Your task to perform on an android device: see creations saved in the google photos Image 0: 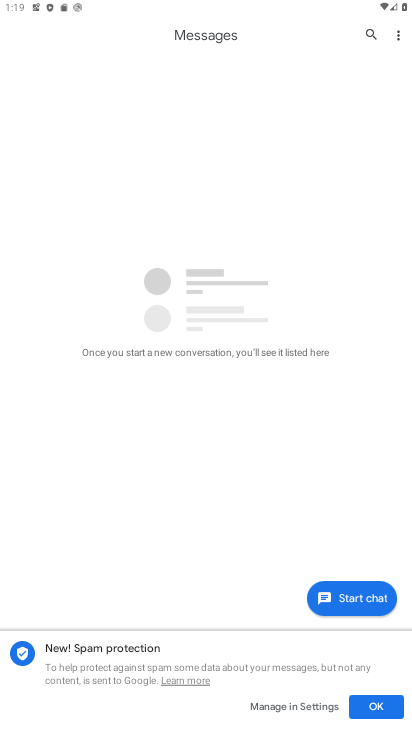
Step 0: press home button
Your task to perform on an android device: see creations saved in the google photos Image 1: 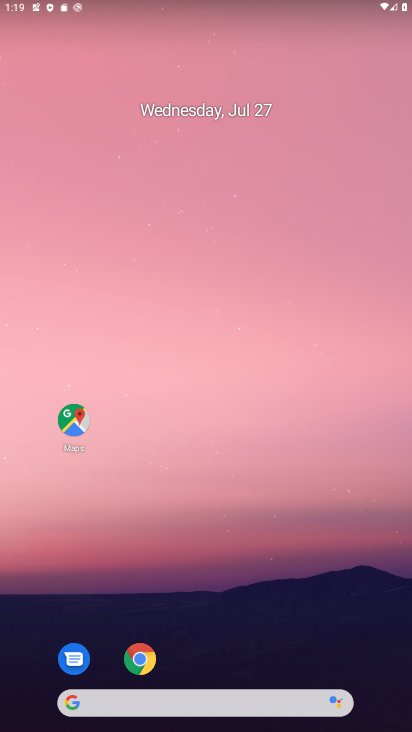
Step 1: drag from (294, 599) to (264, 110)
Your task to perform on an android device: see creations saved in the google photos Image 2: 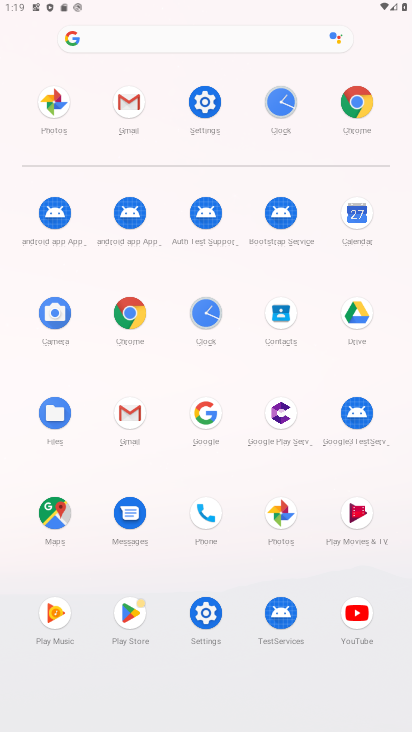
Step 2: click (280, 516)
Your task to perform on an android device: see creations saved in the google photos Image 3: 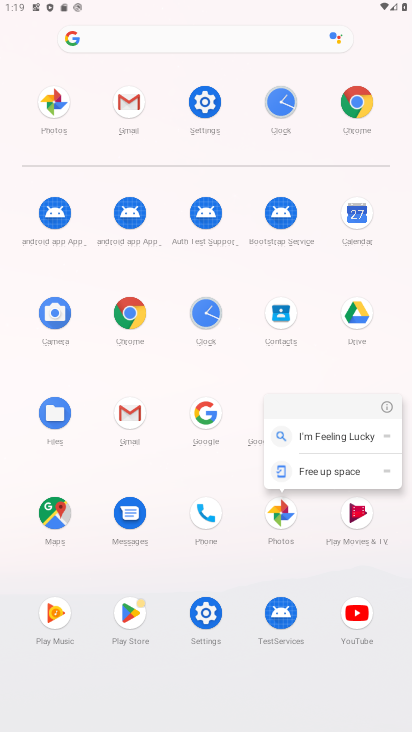
Step 3: click (280, 516)
Your task to perform on an android device: see creations saved in the google photos Image 4: 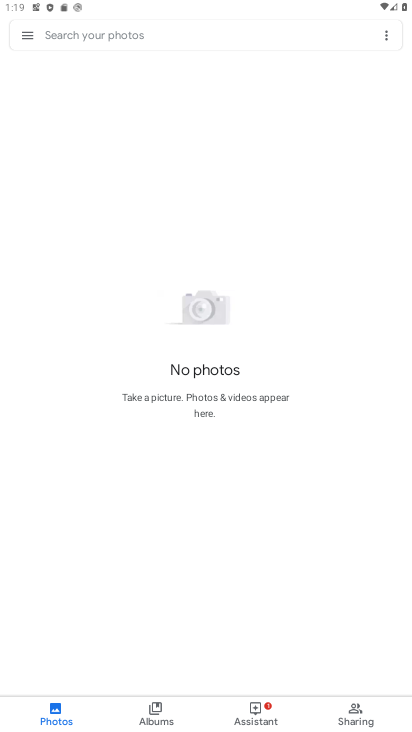
Step 4: click (251, 711)
Your task to perform on an android device: see creations saved in the google photos Image 5: 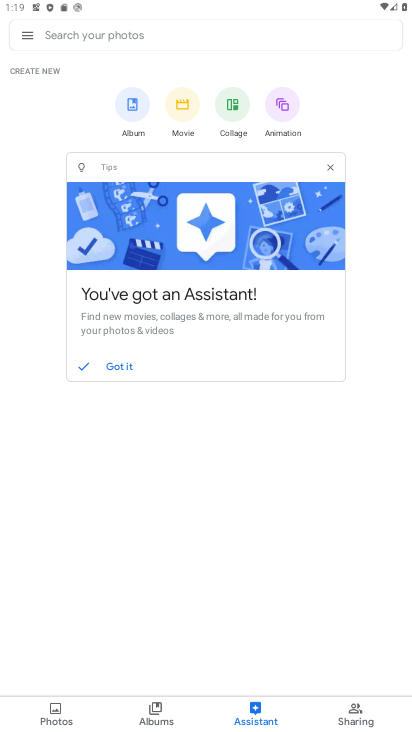
Step 5: click (337, 709)
Your task to perform on an android device: see creations saved in the google photos Image 6: 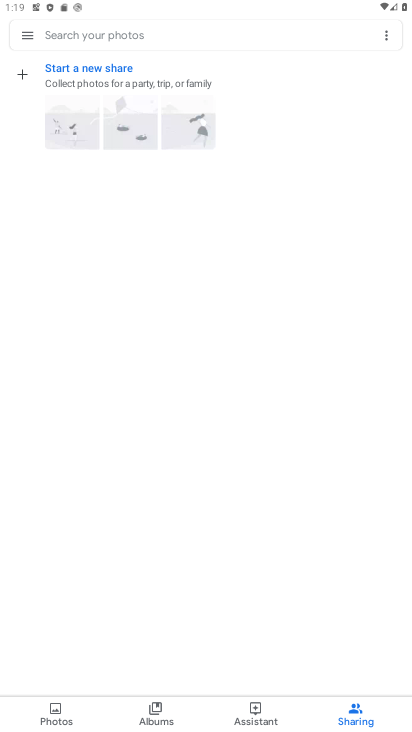
Step 6: click (272, 711)
Your task to perform on an android device: see creations saved in the google photos Image 7: 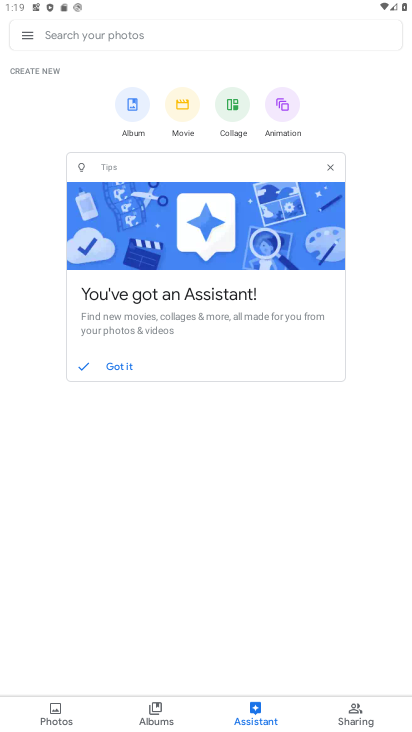
Step 7: task complete